Your task to perform on an android device: Open calendar and show me the fourth week of next month Image 0: 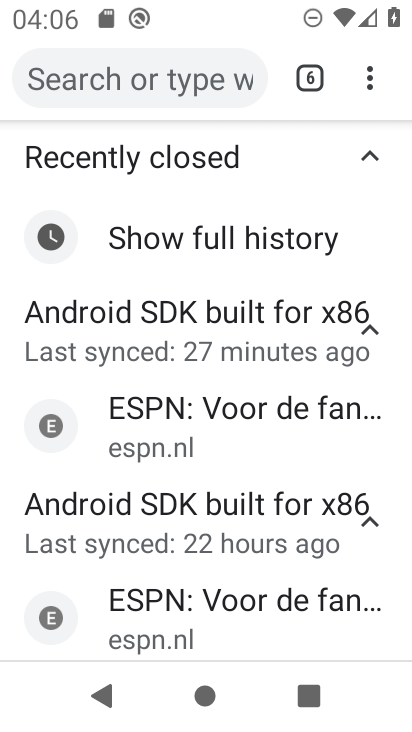
Step 0: press back button
Your task to perform on an android device: Open calendar and show me the fourth week of next month Image 1: 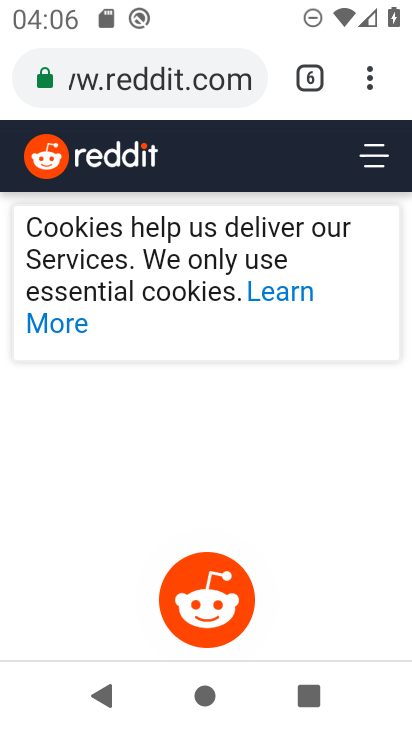
Step 1: press back button
Your task to perform on an android device: Open calendar and show me the fourth week of next month Image 2: 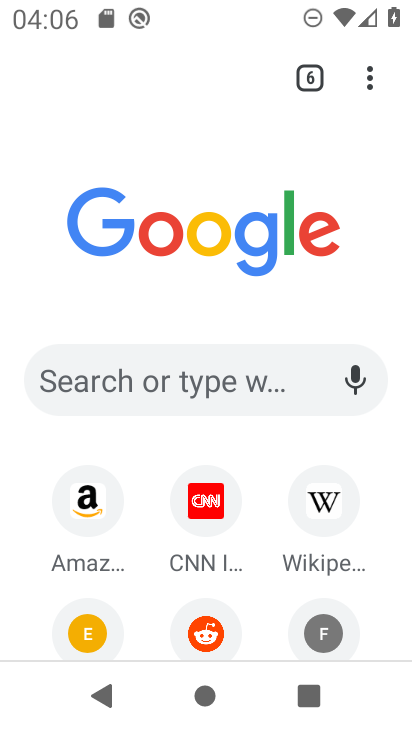
Step 2: press back button
Your task to perform on an android device: Open calendar and show me the fourth week of next month Image 3: 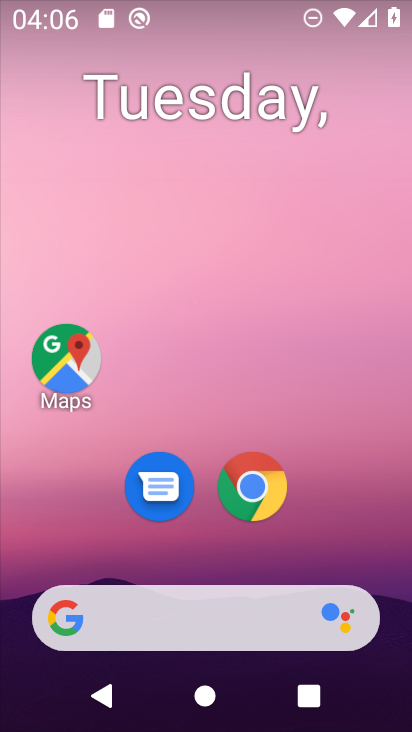
Step 3: drag from (107, 497) to (194, 30)
Your task to perform on an android device: Open calendar and show me the fourth week of next month Image 4: 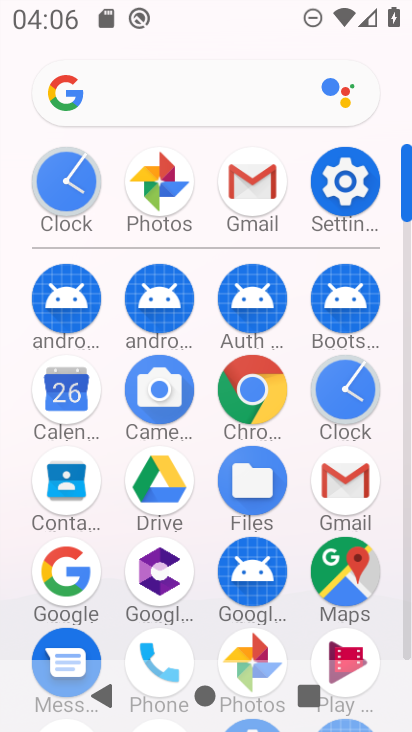
Step 4: click (76, 402)
Your task to perform on an android device: Open calendar and show me the fourth week of next month Image 5: 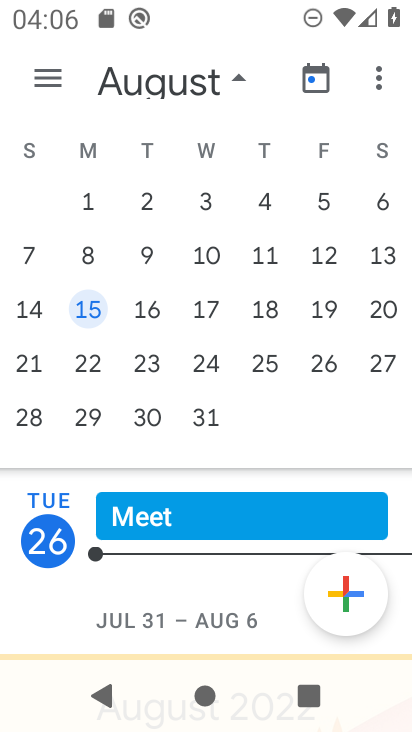
Step 5: click (85, 353)
Your task to perform on an android device: Open calendar and show me the fourth week of next month Image 6: 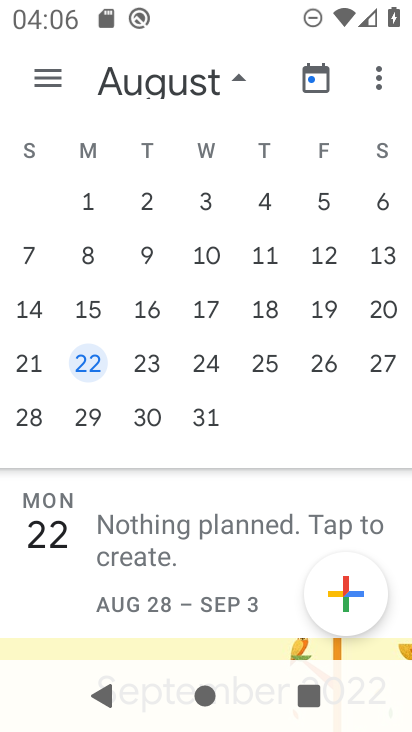
Step 6: task complete